Your task to perform on an android device: Play the new Maroon 5 video on YouTube Image 0: 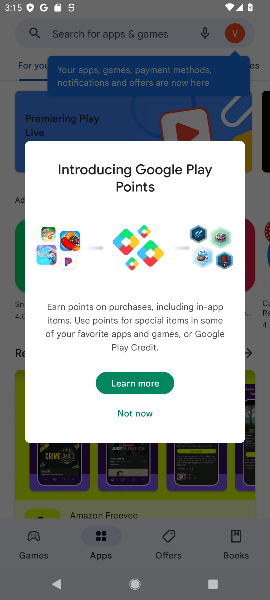
Step 0: press home button
Your task to perform on an android device: Play the new Maroon 5 video on YouTube Image 1: 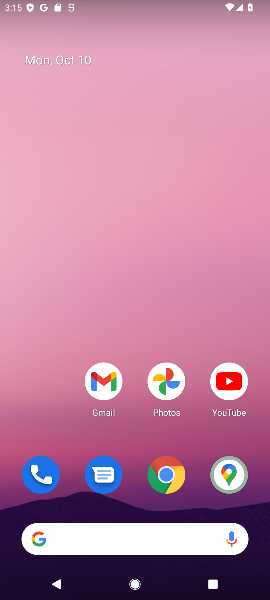
Step 1: drag from (136, 495) to (151, 275)
Your task to perform on an android device: Play the new Maroon 5 video on YouTube Image 2: 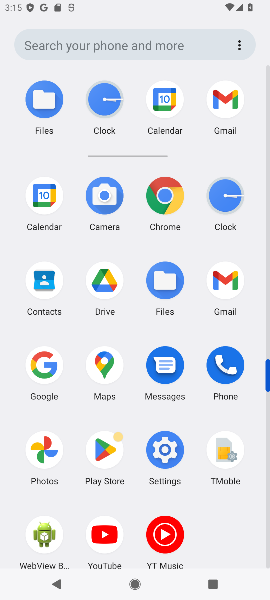
Step 2: click (94, 520)
Your task to perform on an android device: Play the new Maroon 5 video on YouTube Image 3: 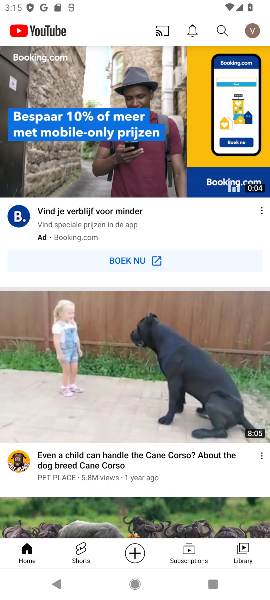
Step 3: click (229, 26)
Your task to perform on an android device: Play the new Maroon 5 video on YouTube Image 4: 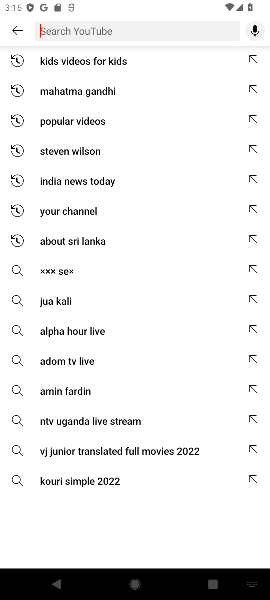
Step 4: type "new Maroon 5"
Your task to perform on an android device: Play the new Maroon 5 video on YouTube Image 5: 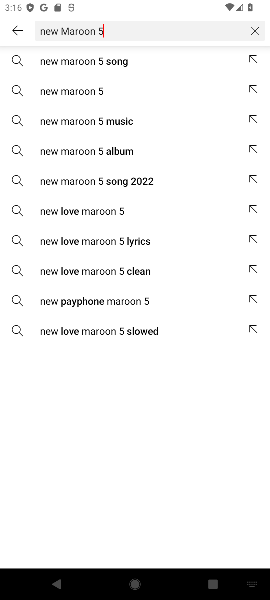
Step 5: click (160, 59)
Your task to perform on an android device: Play the new Maroon 5 video on YouTube Image 6: 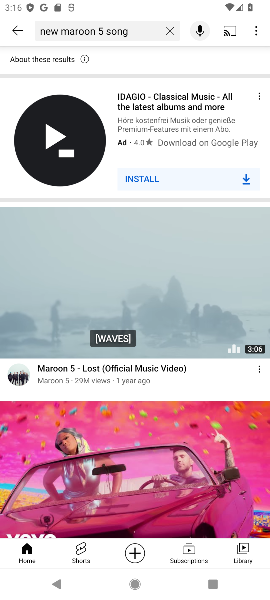
Step 6: click (133, 317)
Your task to perform on an android device: Play the new Maroon 5 video on YouTube Image 7: 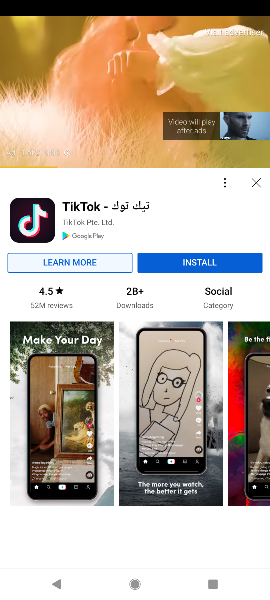
Step 7: click (133, 317)
Your task to perform on an android device: Play the new Maroon 5 video on YouTube Image 8: 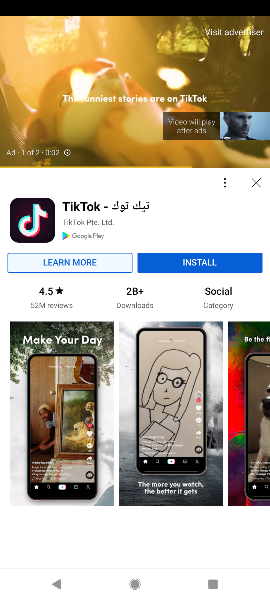
Step 8: click (257, 189)
Your task to perform on an android device: Play the new Maroon 5 video on YouTube Image 9: 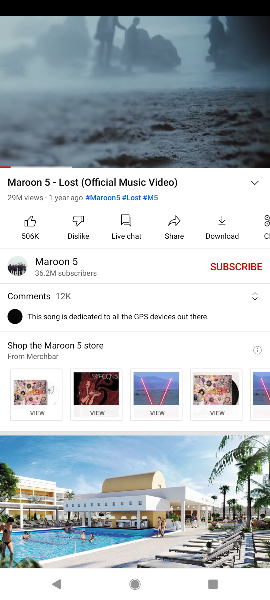
Step 9: task complete